Your task to perform on an android device: Open Google Chrome and click the shortcut for Amazon.com Image 0: 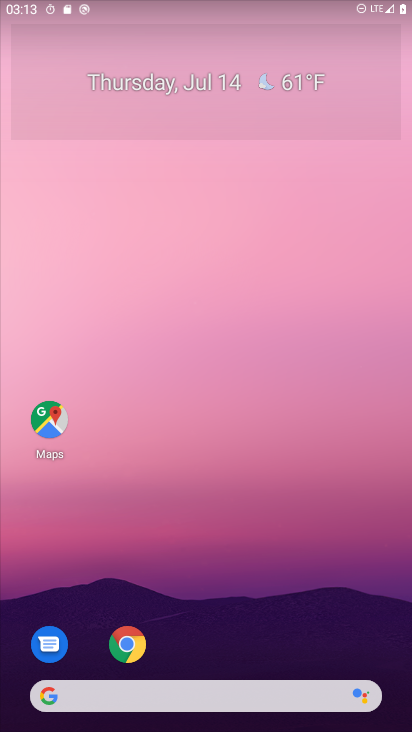
Step 0: drag from (289, 644) to (265, 121)
Your task to perform on an android device: Open Google Chrome and click the shortcut for Amazon.com Image 1: 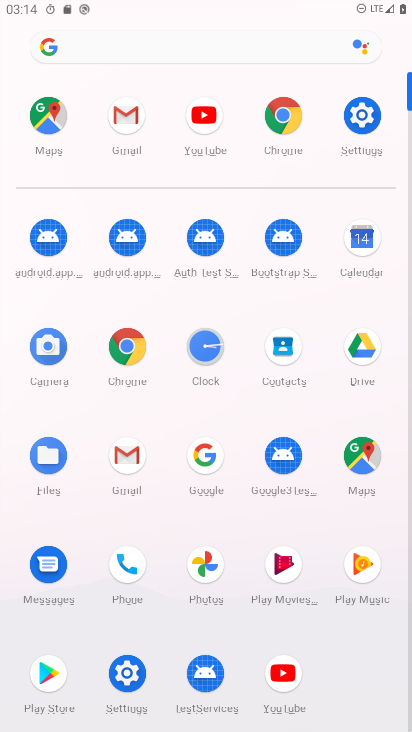
Step 1: click (277, 120)
Your task to perform on an android device: Open Google Chrome and click the shortcut for Amazon.com Image 2: 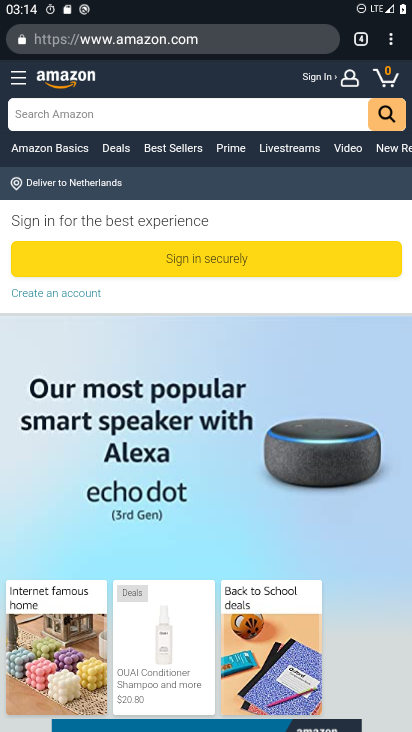
Step 2: drag from (394, 36) to (304, 78)
Your task to perform on an android device: Open Google Chrome and click the shortcut for Amazon.com Image 3: 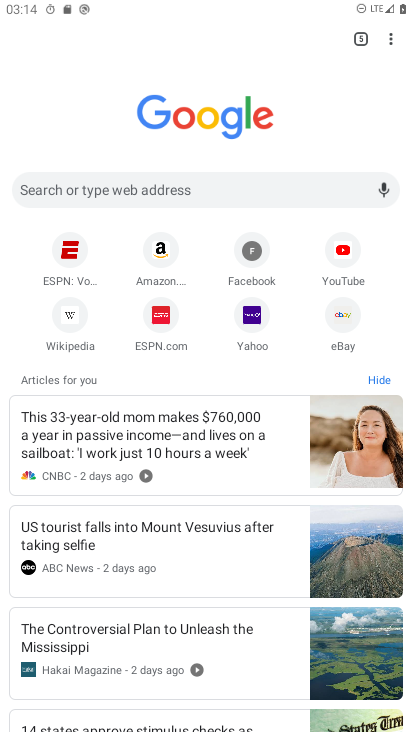
Step 3: click (162, 256)
Your task to perform on an android device: Open Google Chrome and click the shortcut for Amazon.com Image 4: 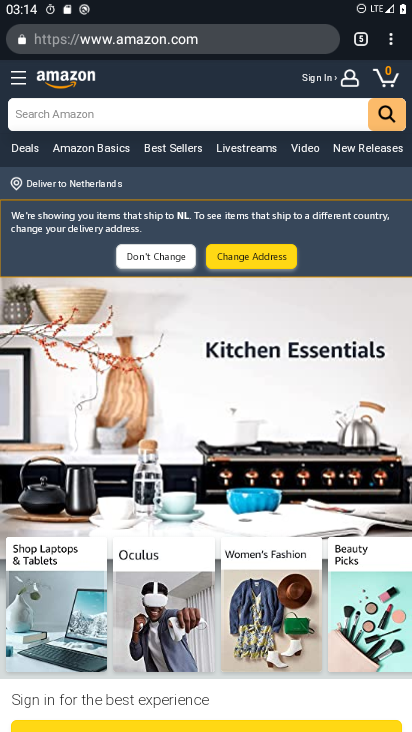
Step 4: task complete